Your task to perform on an android device: turn off smart reply in the gmail app Image 0: 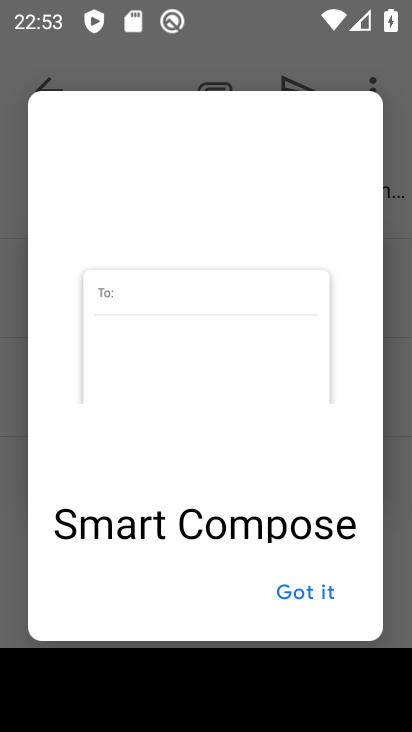
Step 0: click (316, 597)
Your task to perform on an android device: turn off smart reply in the gmail app Image 1: 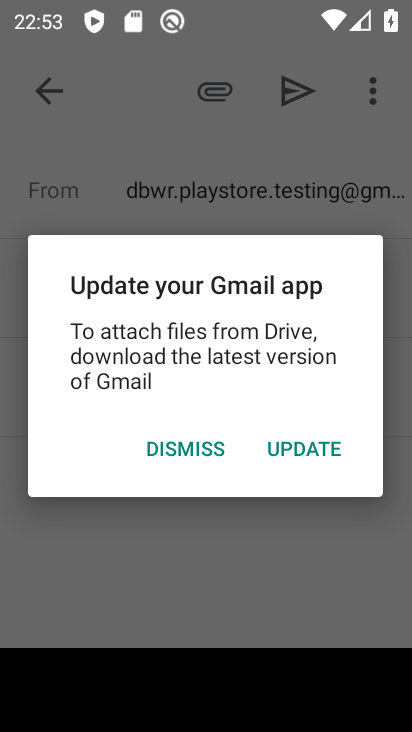
Step 1: press home button
Your task to perform on an android device: turn off smart reply in the gmail app Image 2: 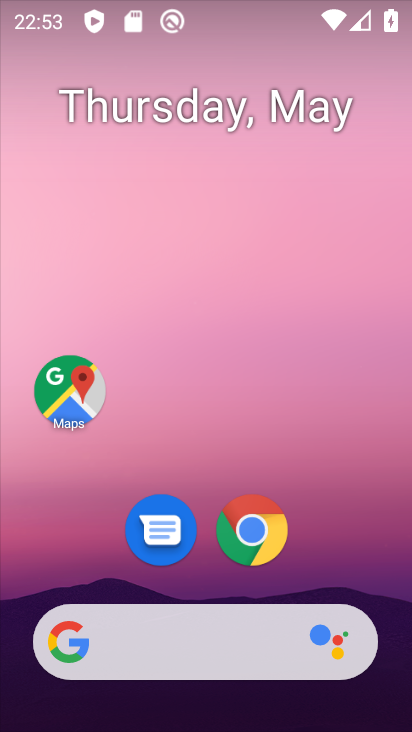
Step 2: drag from (187, 464) to (216, 9)
Your task to perform on an android device: turn off smart reply in the gmail app Image 3: 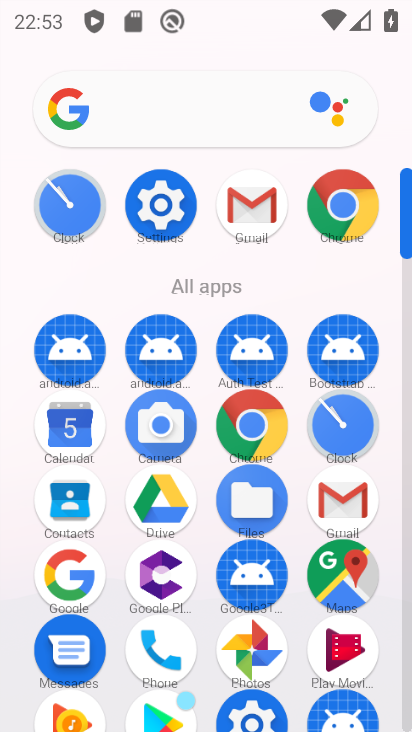
Step 3: click (248, 208)
Your task to perform on an android device: turn off smart reply in the gmail app Image 4: 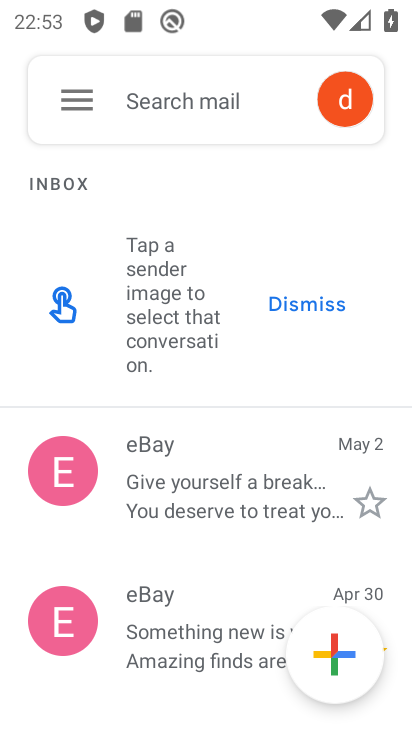
Step 4: click (69, 105)
Your task to perform on an android device: turn off smart reply in the gmail app Image 5: 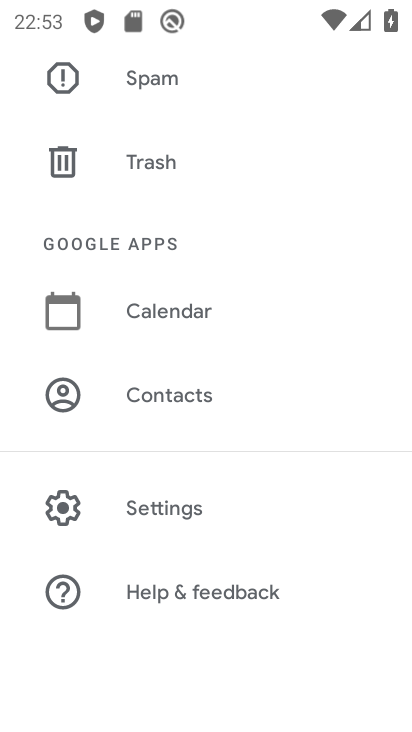
Step 5: click (180, 501)
Your task to perform on an android device: turn off smart reply in the gmail app Image 6: 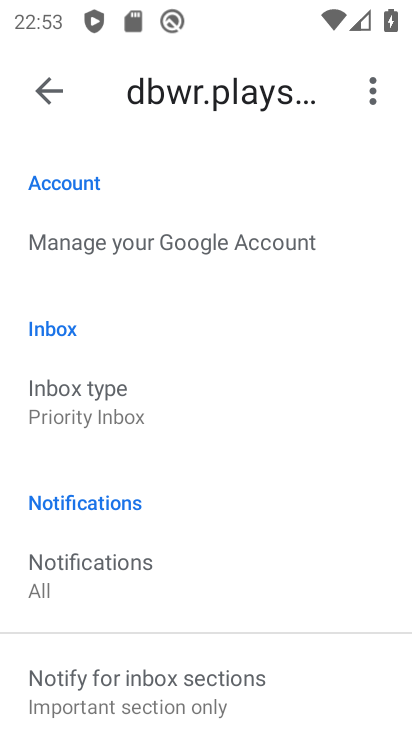
Step 6: drag from (210, 519) to (228, 414)
Your task to perform on an android device: turn off smart reply in the gmail app Image 7: 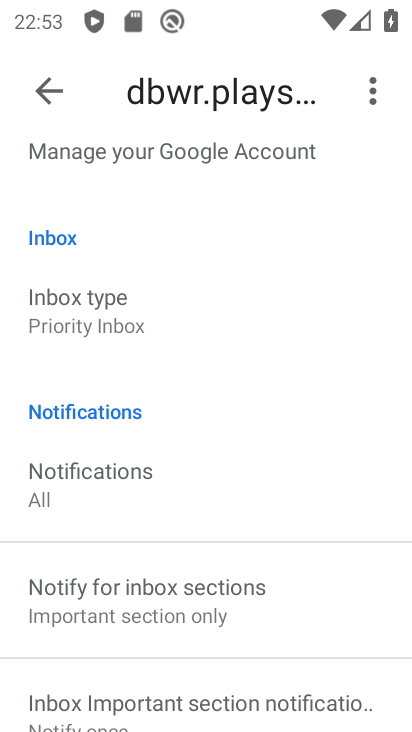
Step 7: drag from (211, 500) to (252, 371)
Your task to perform on an android device: turn off smart reply in the gmail app Image 8: 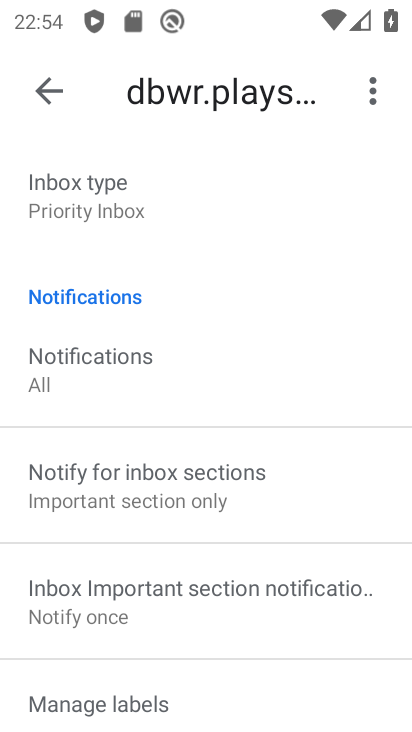
Step 8: drag from (187, 562) to (283, 437)
Your task to perform on an android device: turn off smart reply in the gmail app Image 9: 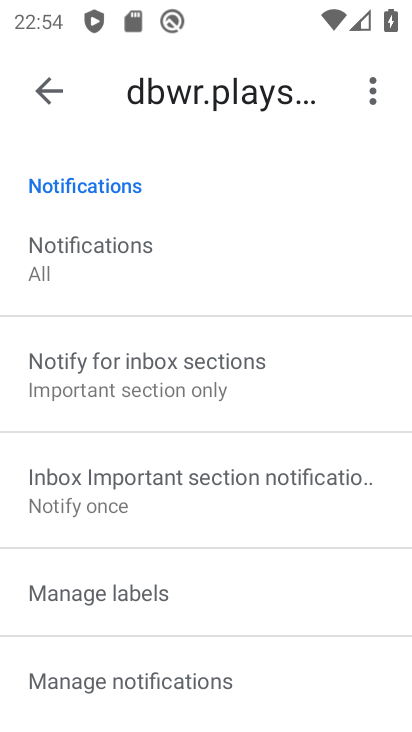
Step 9: drag from (201, 593) to (292, 458)
Your task to perform on an android device: turn off smart reply in the gmail app Image 10: 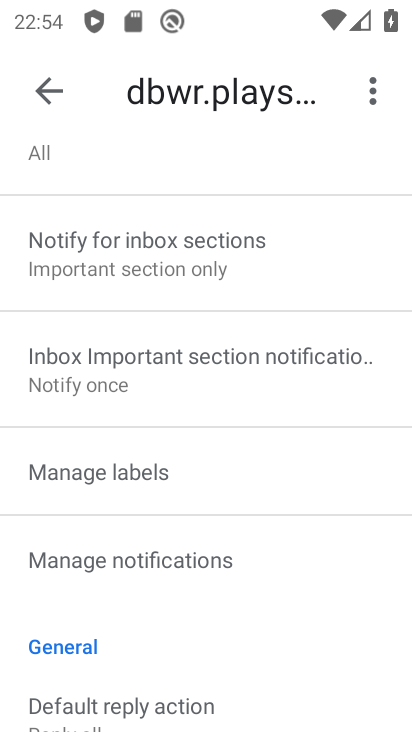
Step 10: drag from (200, 595) to (294, 476)
Your task to perform on an android device: turn off smart reply in the gmail app Image 11: 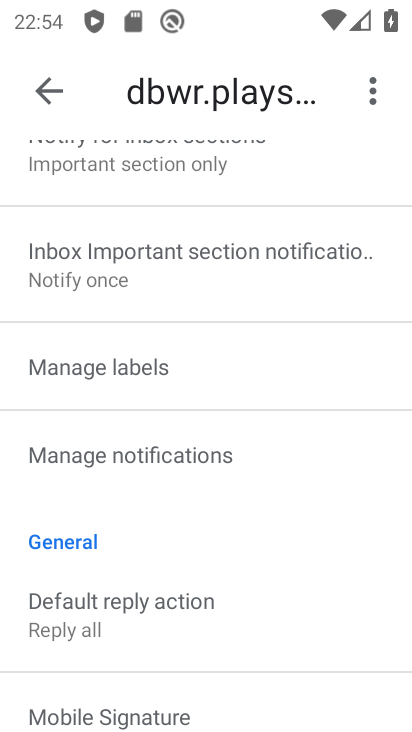
Step 11: drag from (172, 631) to (247, 535)
Your task to perform on an android device: turn off smart reply in the gmail app Image 12: 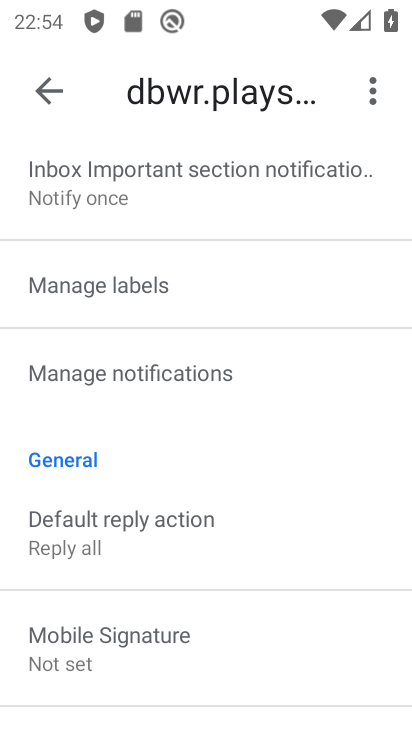
Step 12: drag from (178, 666) to (272, 515)
Your task to perform on an android device: turn off smart reply in the gmail app Image 13: 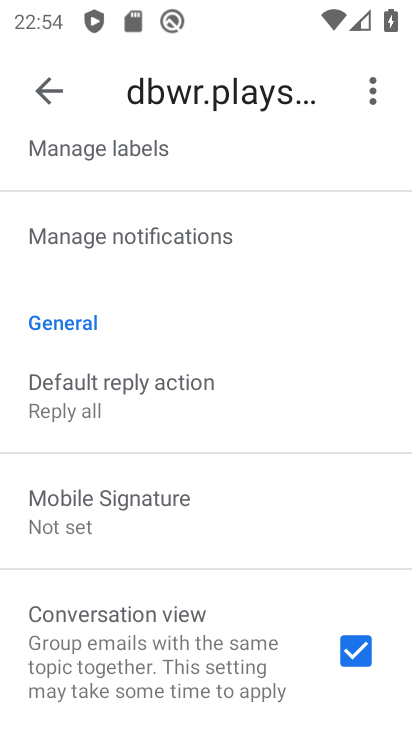
Step 13: drag from (188, 599) to (312, 460)
Your task to perform on an android device: turn off smart reply in the gmail app Image 14: 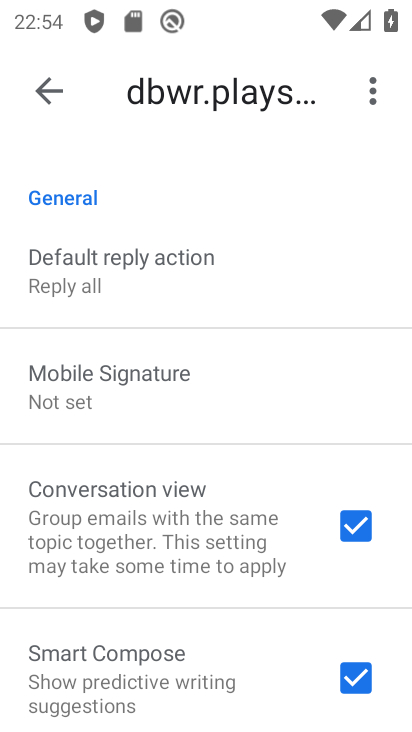
Step 14: drag from (189, 632) to (279, 496)
Your task to perform on an android device: turn off smart reply in the gmail app Image 15: 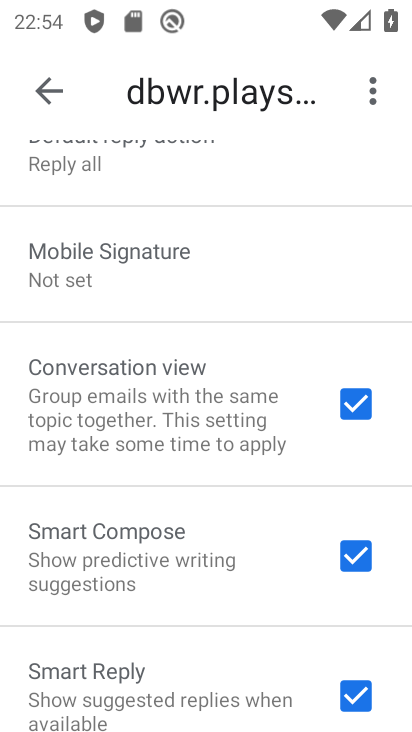
Step 15: drag from (179, 669) to (256, 572)
Your task to perform on an android device: turn off smart reply in the gmail app Image 16: 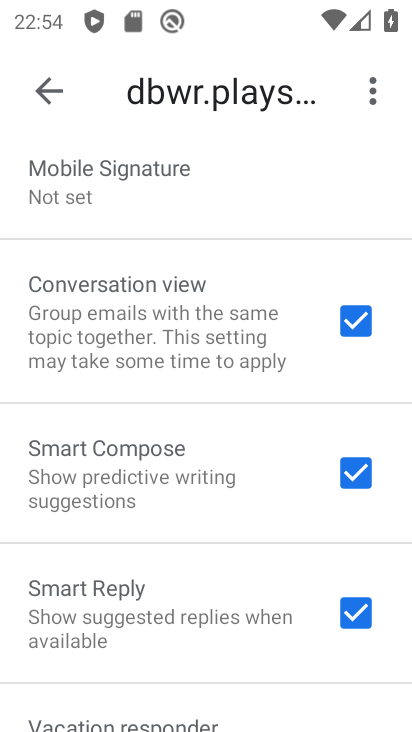
Step 16: click (351, 613)
Your task to perform on an android device: turn off smart reply in the gmail app Image 17: 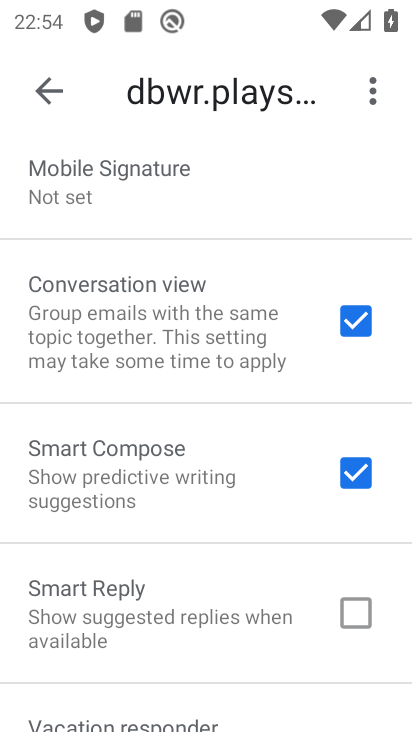
Step 17: task complete